Your task to perform on an android device: turn off picture-in-picture Image 0: 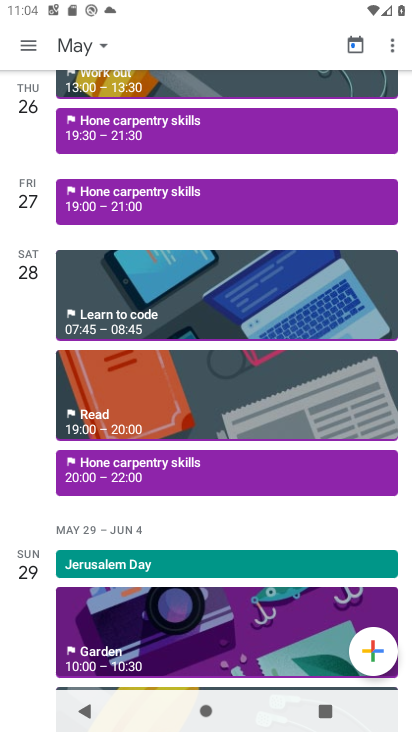
Step 0: press home button
Your task to perform on an android device: turn off picture-in-picture Image 1: 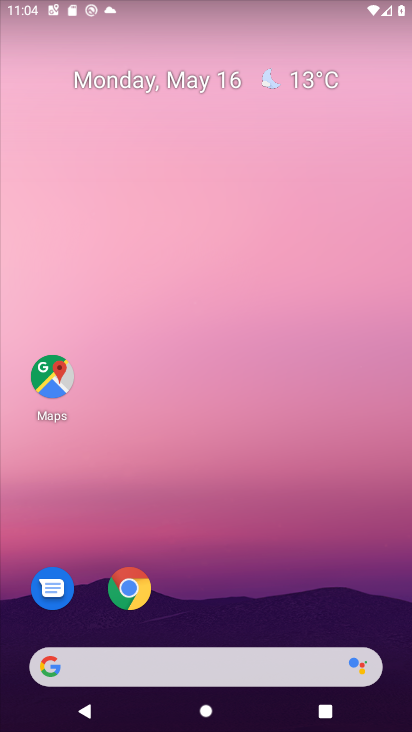
Step 1: click (130, 580)
Your task to perform on an android device: turn off picture-in-picture Image 2: 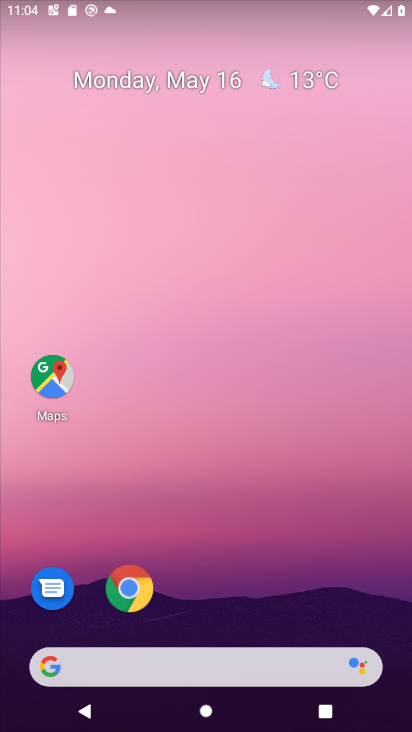
Step 2: click (130, 580)
Your task to perform on an android device: turn off picture-in-picture Image 3: 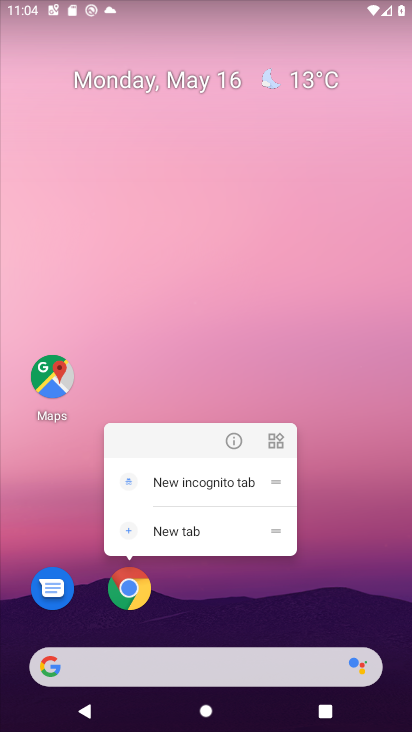
Step 3: click (233, 435)
Your task to perform on an android device: turn off picture-in-picture Image 4: 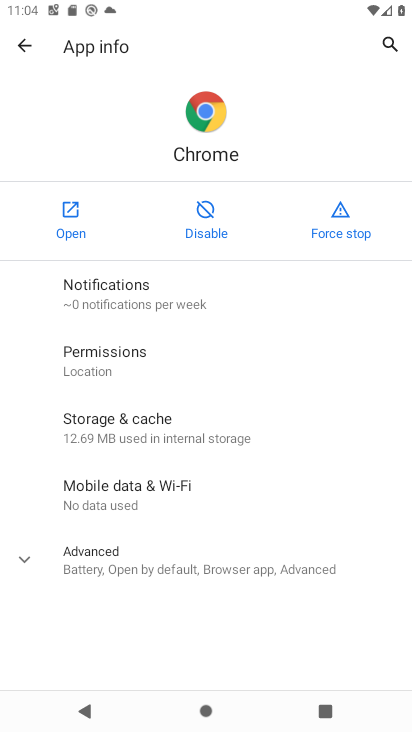
Step 4: click (25, 554)
Your task to perform on an android device: turn off picture-in-picture Image 5: 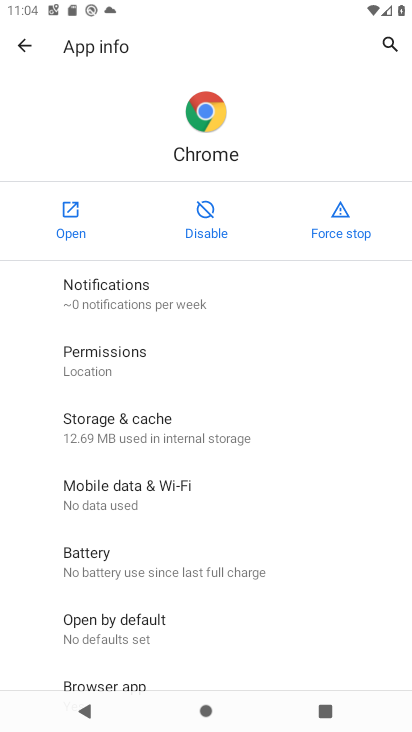
Step 5: drag from (153, 646) to (175, 217)
Your task to perform on an android device: turn off picture-in-picture Image 6: 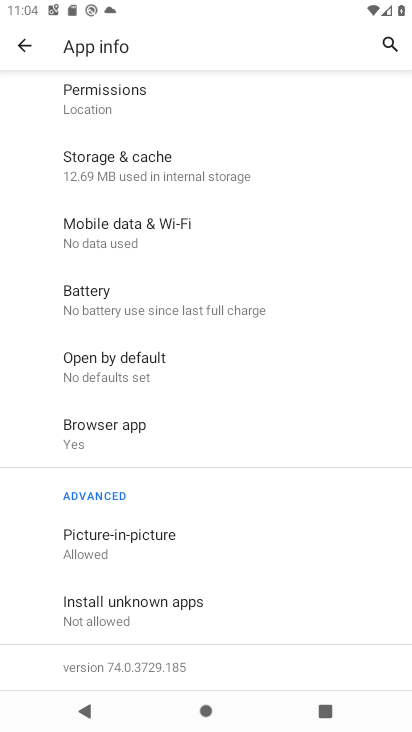
Step 6: click (158, 545)
Your task to perform on an android device: turn off picture-in-picture Image 7: 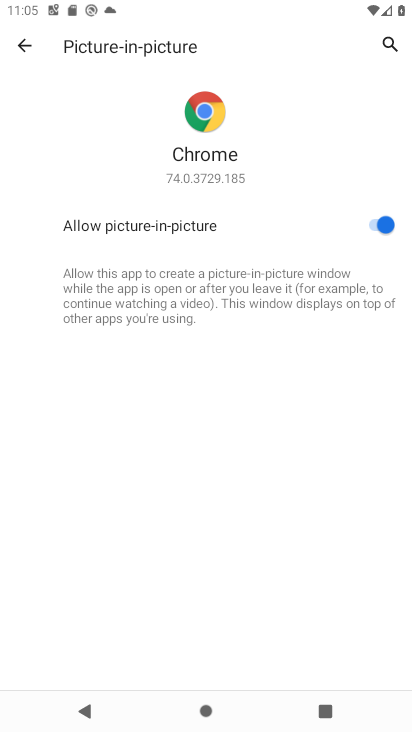
Step 7: click (372, 222)
Your task to perform on an android device: turn off picture-in-picture Image 8: 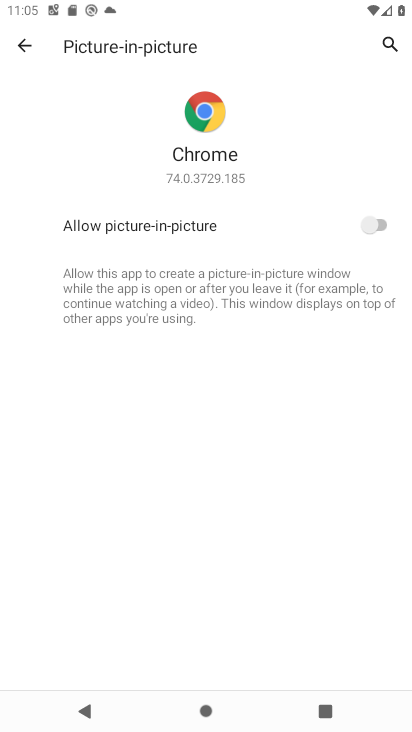
Step 8: task complete